Your task to perform on an android device: When is my next meeting? Image 0: 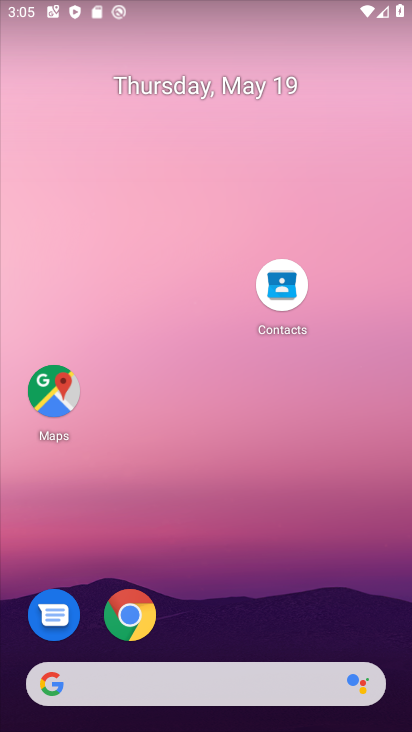
Step 0: drag from (215, 607) to (268, 175)
Your task to perform on an android device: When is my next meeting? Image 1: 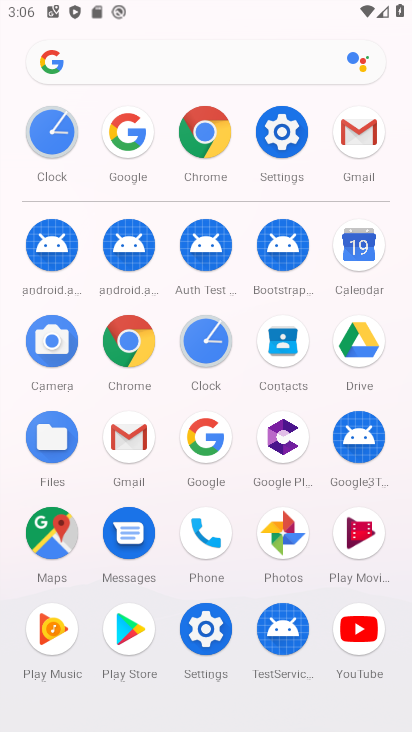
Step 1: click (364, 261)
Your task to perform on an android device: When is my next meeting? Image 2: 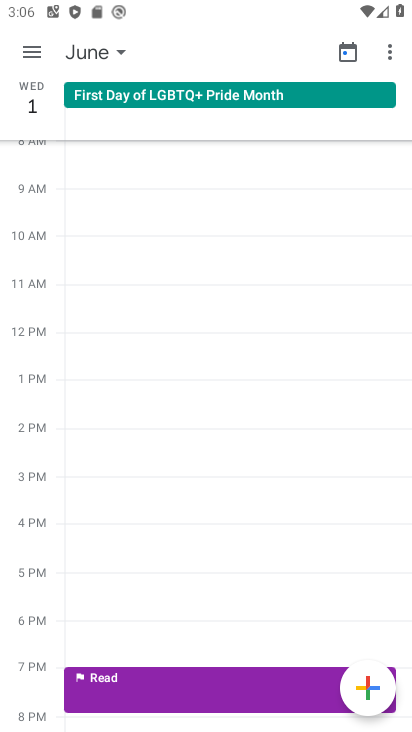
Step 2: click (111, 58)
Your task to perform on an android device: When is my next meeting? Image 3: 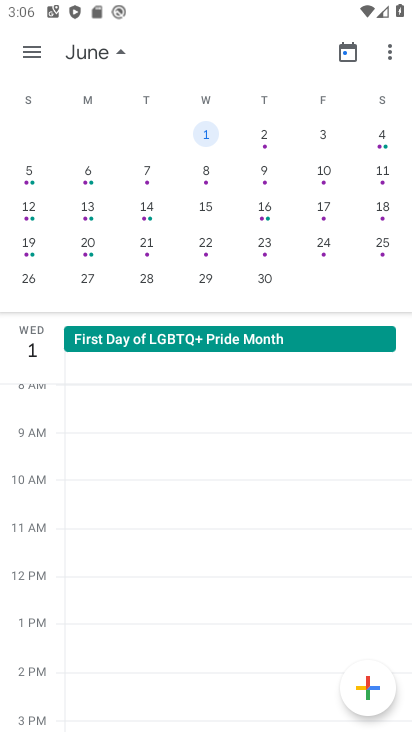
Step 3: drag from (62, 222) to (381, 275)
Your task to perform on an android device: When is my next meeting? Image 4: 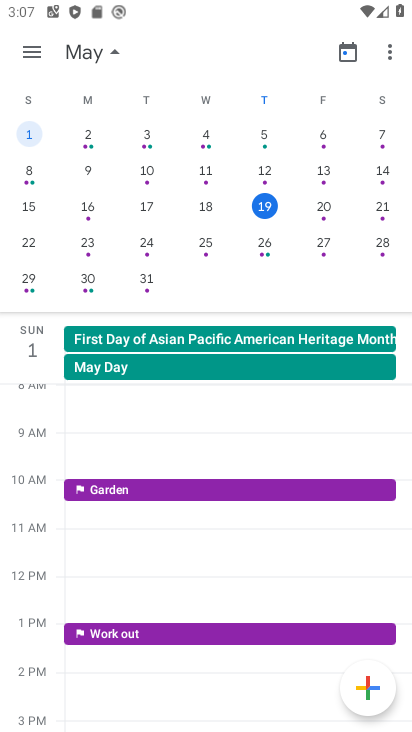
Step 4: click (48, 54)
Your task to perform on an android device: When is my next meeting? Image 5: 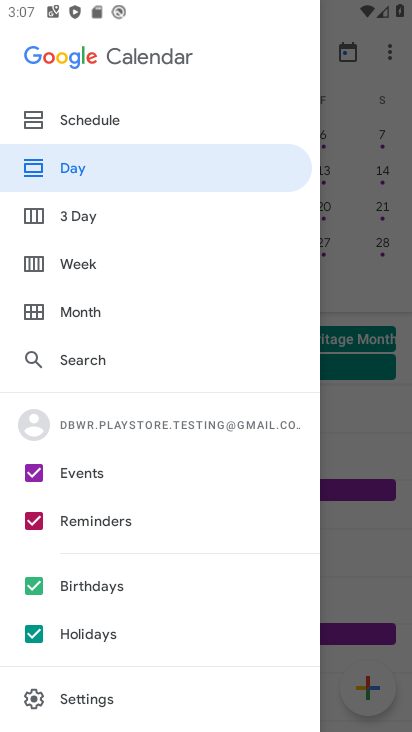
Step 5: click (50, 592)
Your task to perform on an android device: When is my next meeting? Image 6: 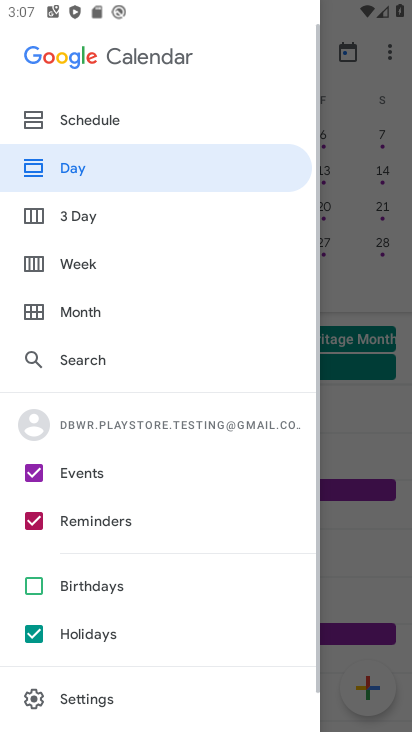
Step 6: click (35, 628)
Your task to perform on an android device: When is my next meeting? Image 7: 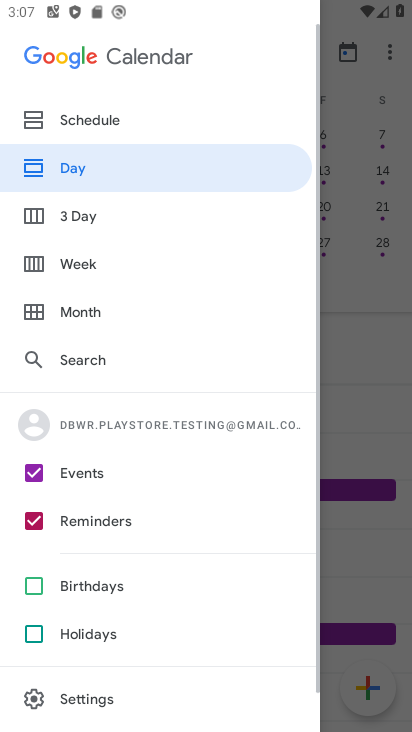
Step 7: click (346, 347)
Your task to perform on an android device: When is my next meeting? Image 8: 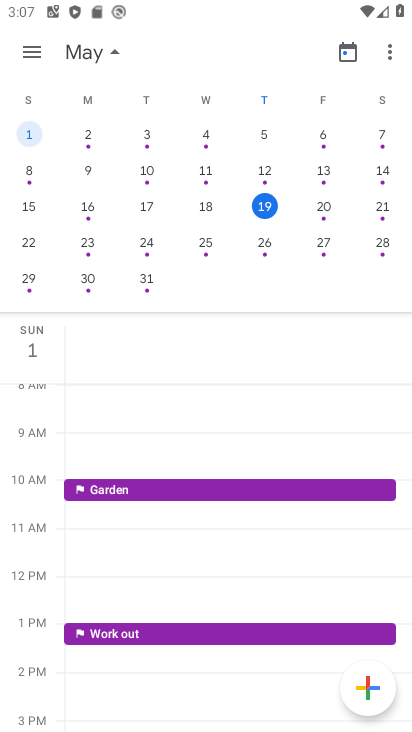
Step 8: task complete